Your task to perform on an android device: Search for pizza restaurants on Maps Image 0: 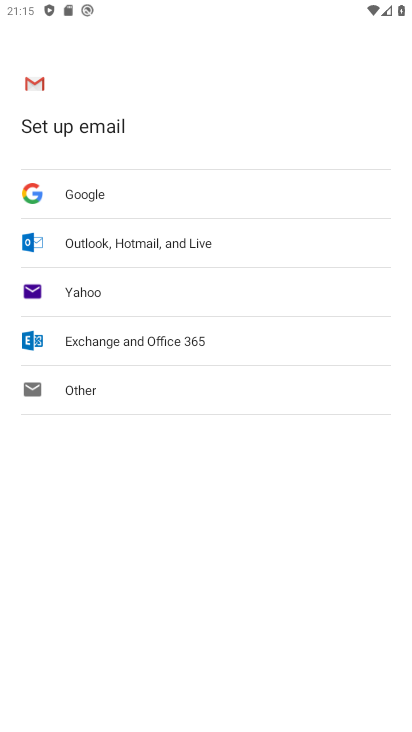
Step 0: press home button
Your task to perform on an android device: Search for pizza restaurants on Maps Image 1: 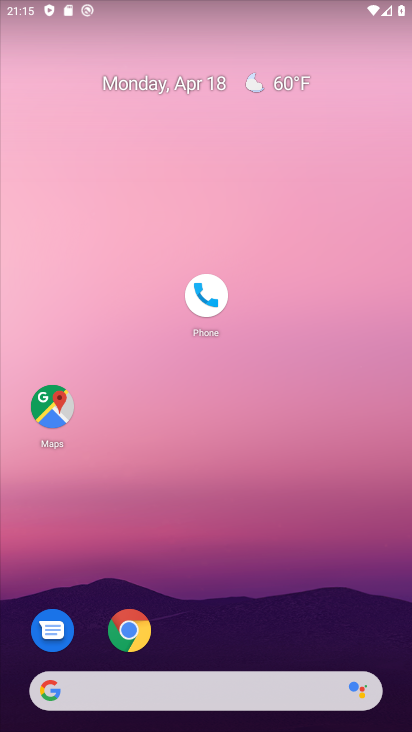
Step 1: click (57, 408)
Your task to perform on an android device: Search for pizza restaurants on Maps Image 2: 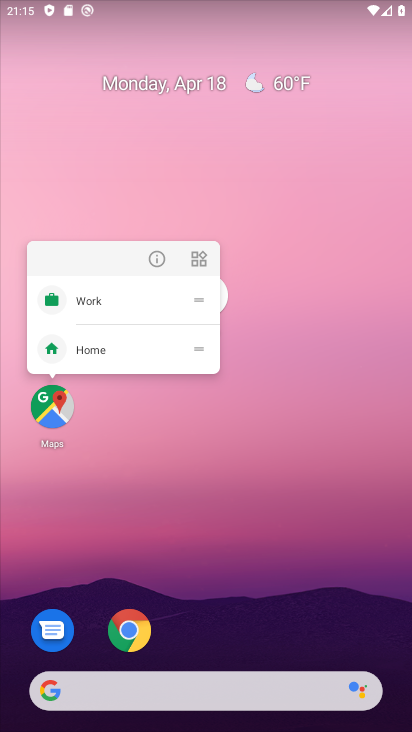
Step 2: drag from (316, 516) to (357, 124)
Your task to perform on an android device: Search for pizza restaurants on Maps Image 3: 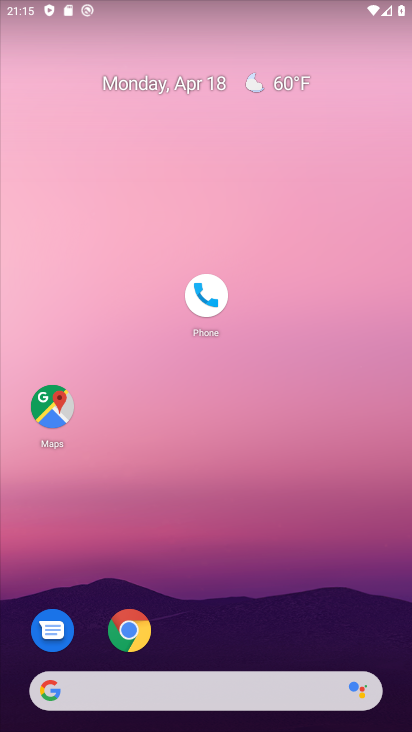
Step 3: drag from (293, 516) to (297, 171)
Your task to perform on an android device: Search for pizza restaurants on Maps Image 4: 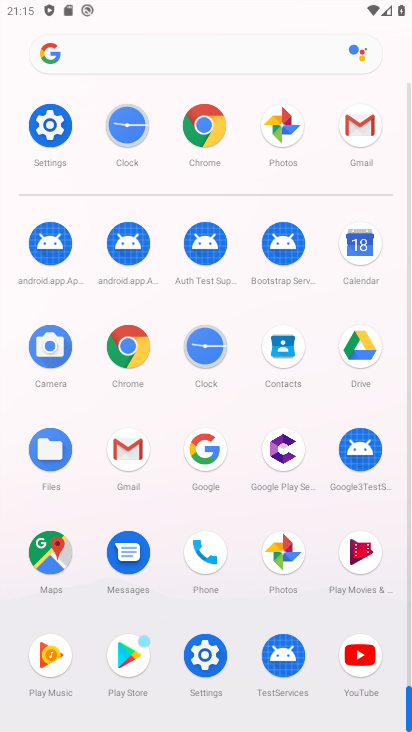
Step 4: click (47, 553)
Your task to perform on an android device: Search for pizza restaurants on Maps Image 5: 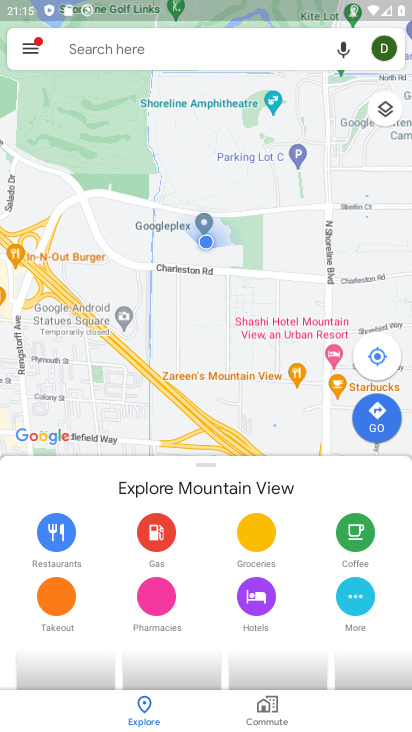
Step 5: click (231, 52)
Your task to perform on an android device: Search for pizza restaurants on Maps Image 6: 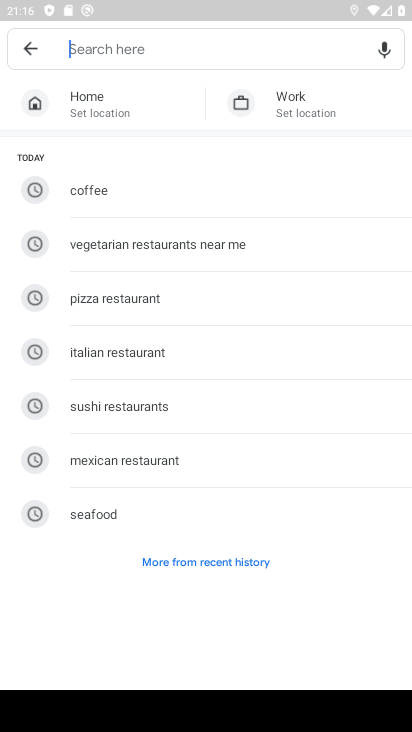
Step 6: type "pizza restaurants"
Your task to perform on an android device: Search for pizza restaurants on Maps Image 7: 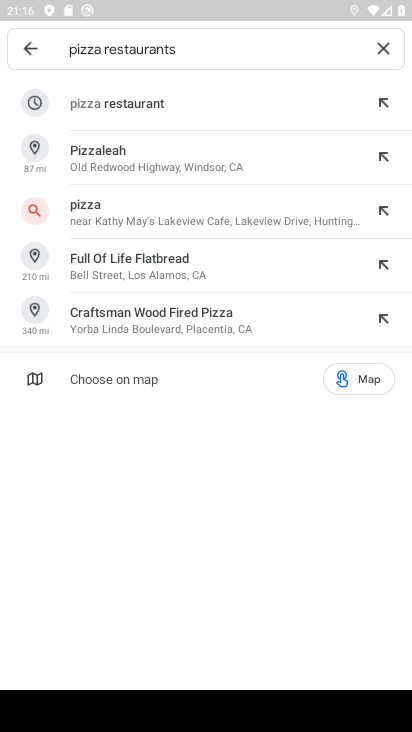
Step 7: press enter
Your task to perform on an android device: Search for pizza restaurants on Maps Image 8: 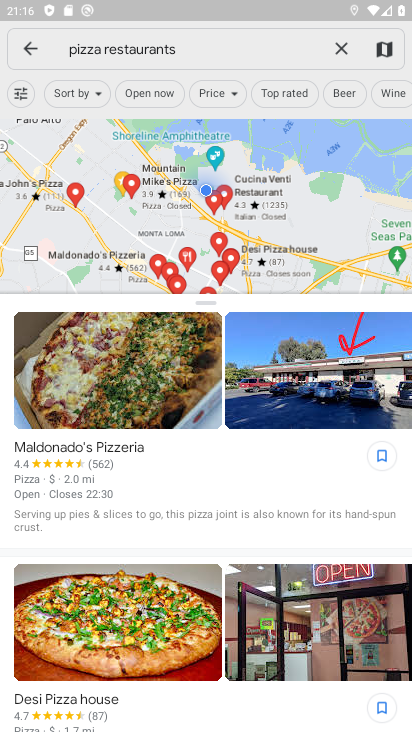
Step 8: task complete